Your task to perform on an android device: Go to Android settings Image 0: 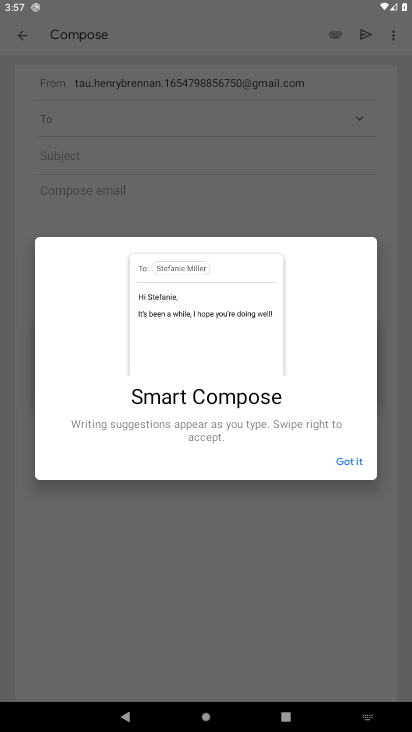
Step 0: press home button
Your task to perform on an android device: Go to Android settings Image 1: 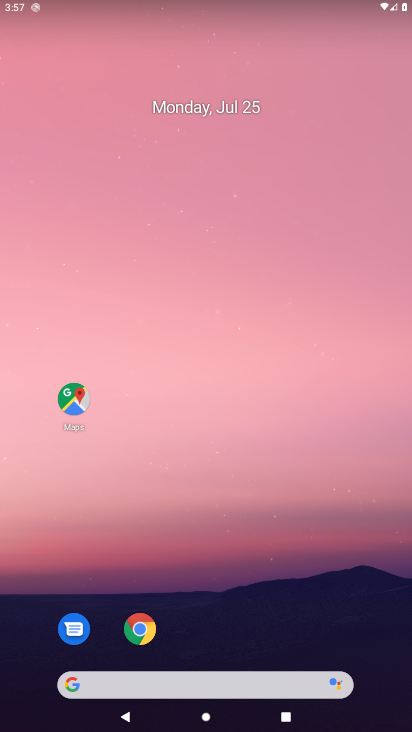
Step 1: drag from (38, 666) to (253, 51)
Your task to perform on an android device: Go to Android settings Image 2: 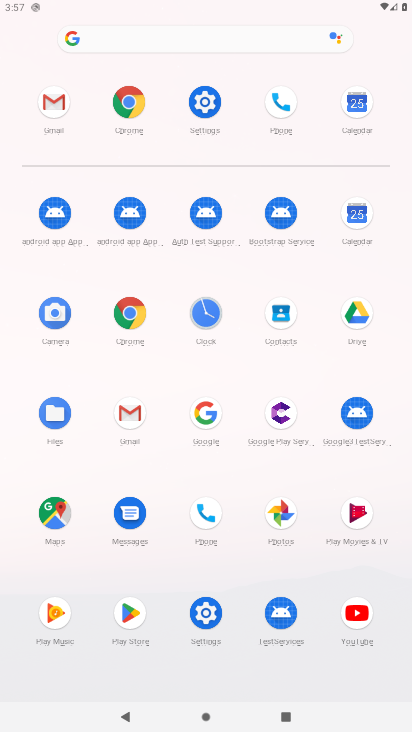
Step 2: click (203, 636)
Your task to perform on an android device: Go to Android settings Image 3: 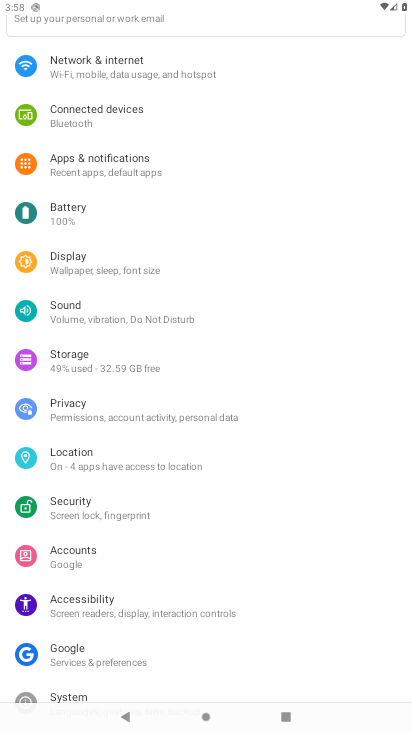
Step 3: drag from (246, 638) to (282, 444)
Your task to perform on an android device: Go to Android settings Image 4: 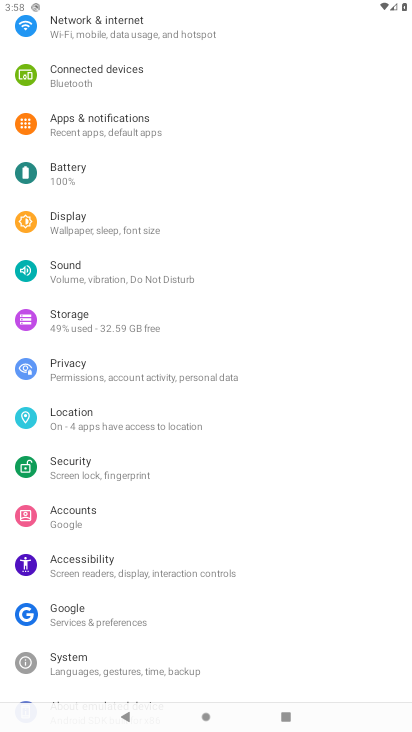
Step 4: drag from (230, 632) to (290, 306)
Your task to perform on an android device: Go to Android settings Image 5: 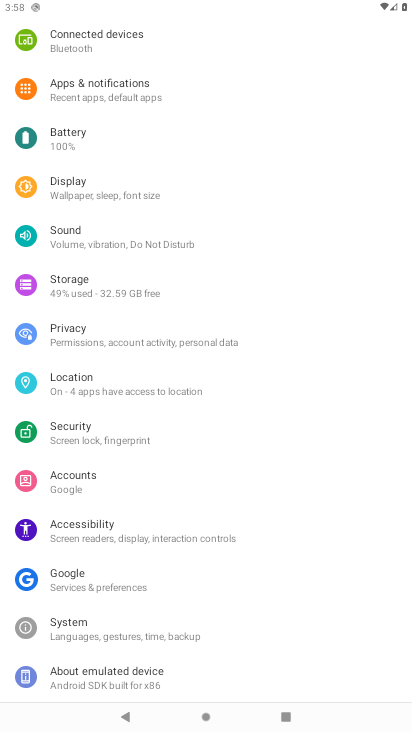
Step 5: click (83, 670)
Your task to perform on an android device: Go to Android settings Image 6: 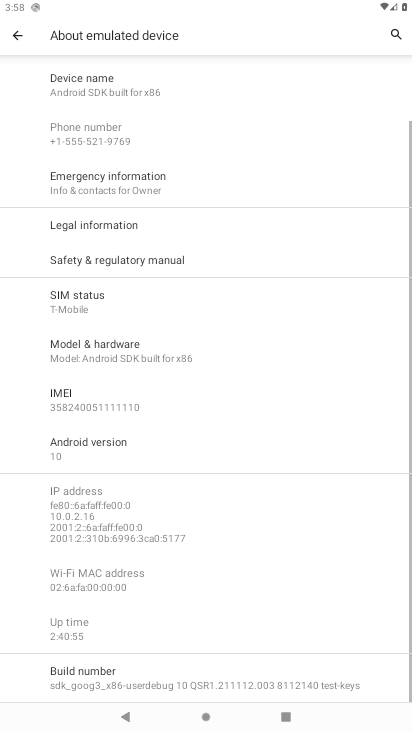
Step 6: click (123, 455)
Your task to perform on an android device: Go to Android settings Image 7: 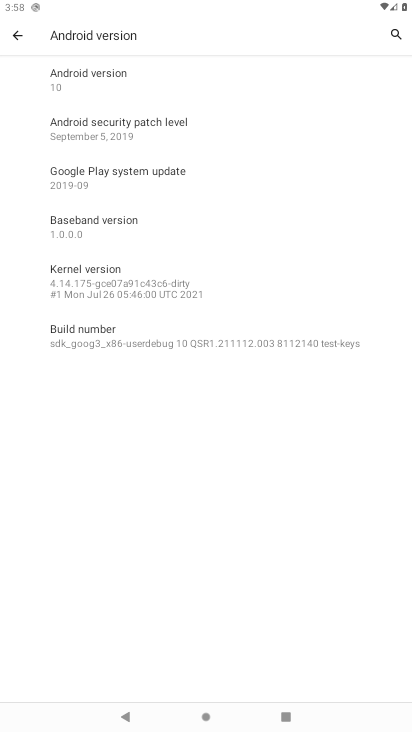
Step 7: task complete